Your task to perform on an android device: Go to battery settings Image 0: 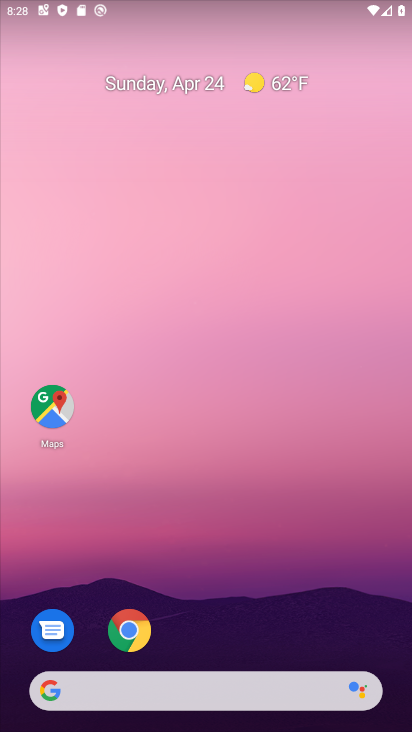
Step 0: drag from (304, 582) to (316, 27)
Your task to perform on an android device: Go to battery settings Image 1: 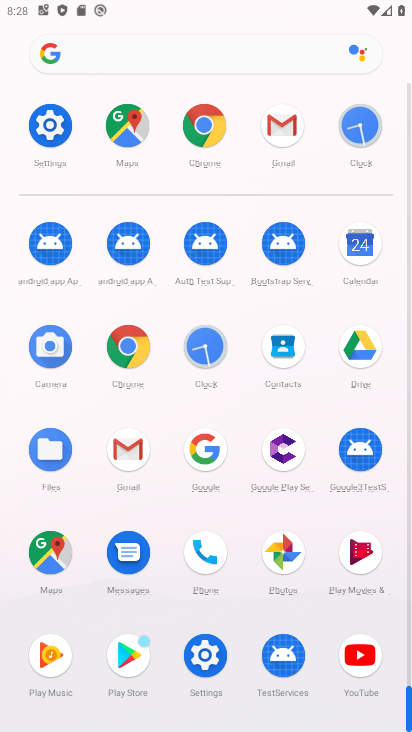
Step 1: drag from (15, 560) to (13, 277)
Your task to perform on an android device: Go to battery settings Image 2: 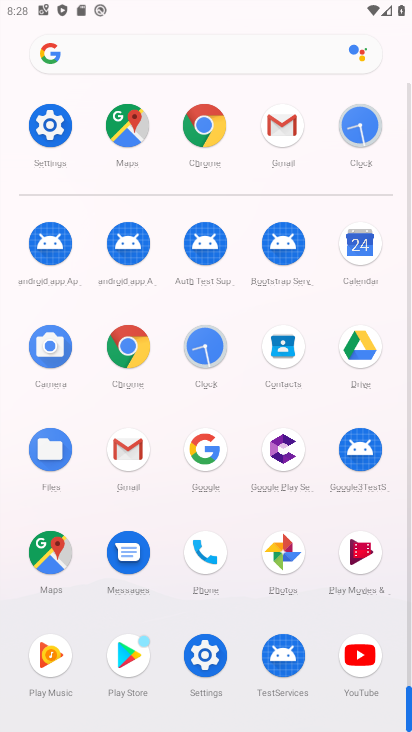
Step 2: click (205, 654)
Your task to perform on an android device: Go to battery settings Image 3: 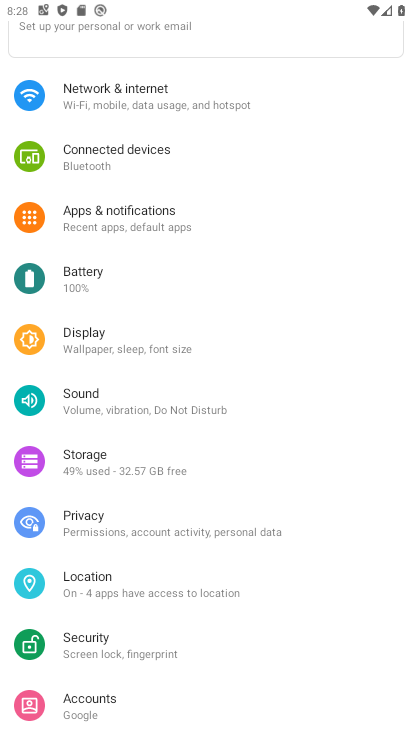
Step 3: click (127, 277)
Your task to perform on an android device: Go to battery settings Image 4: 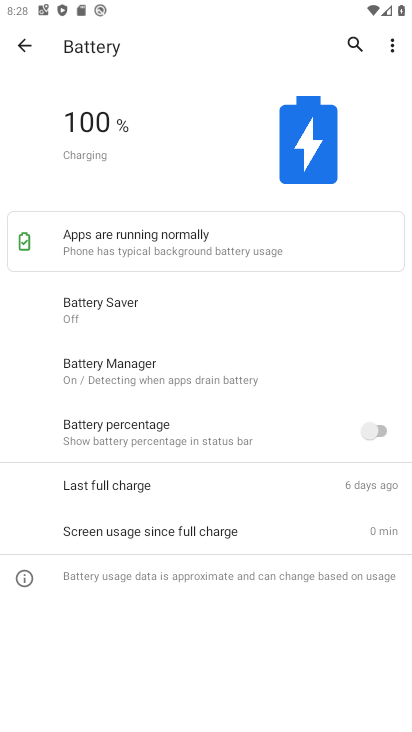
Step 4: task complete